Your task to perform on an android device: What is the news today? Image 0: 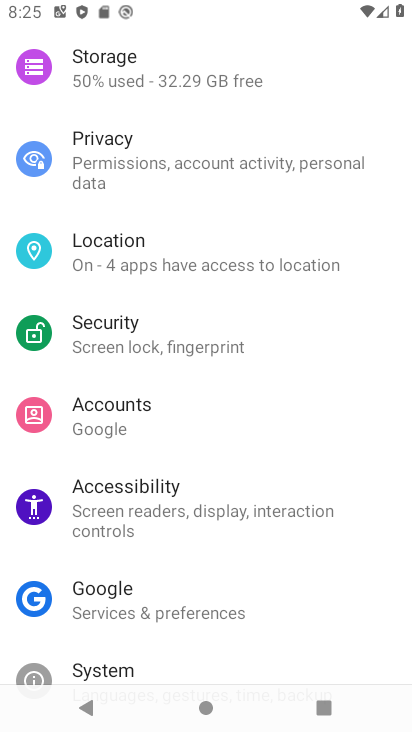
Step 0: press home button
Your task to perform on an android device: What is the news today? Image 1: 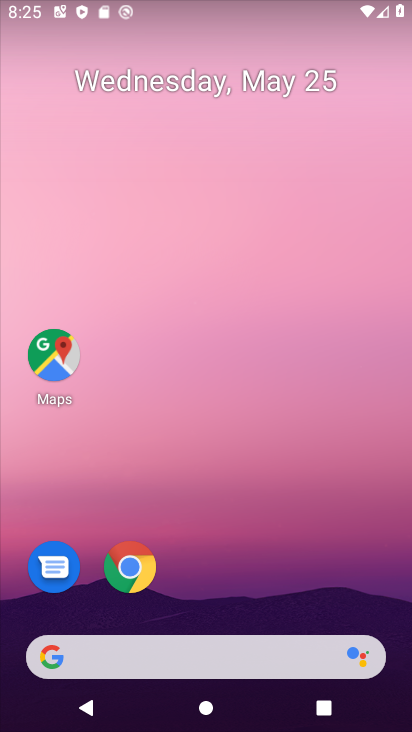
Step 1: drag from (291, 574) to (321, 154)
Your task to perform on an android device: What is the news today? Image 2: 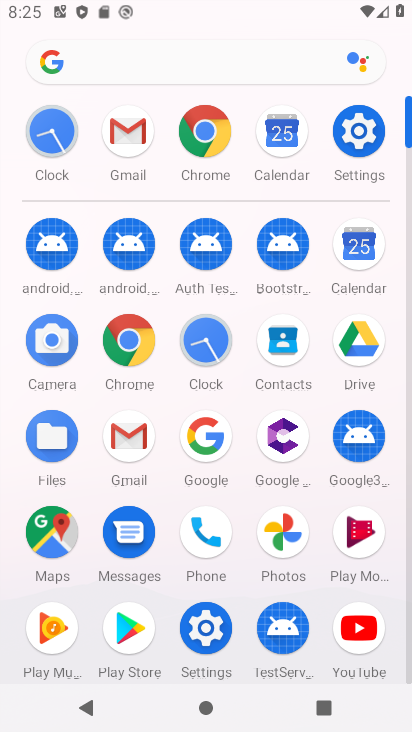
Step 2: click (226, 67)
Your task to perform on an android device: What is the news today? Image 3: 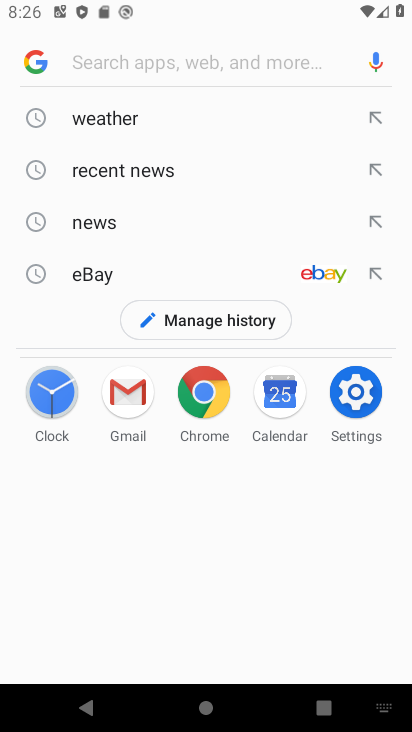
Step 3: click (138, 239)
Your task to perform on an android device: What is the news today? Image 4: 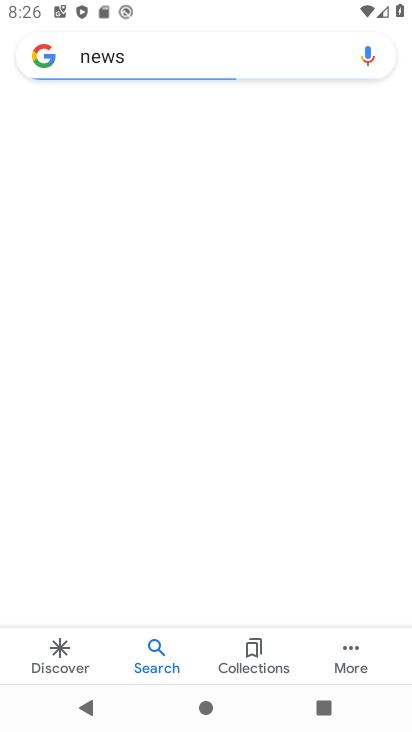
Step 4: task complete